Your task to perform on an android device: Check the weather Image 0: 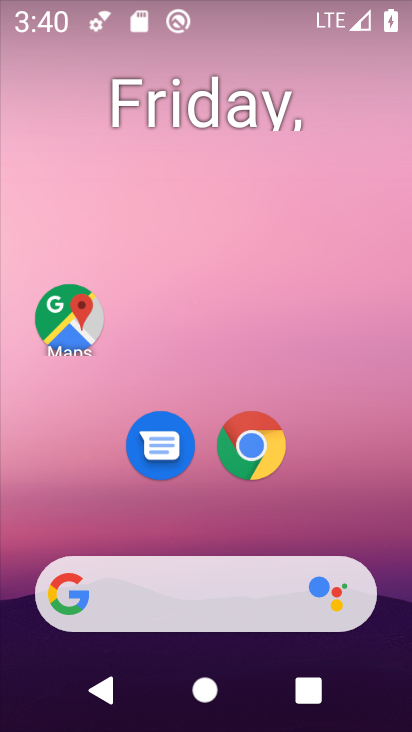
Step 0: click (252, 455)
Your task to perform on an android device: Check the weather Image 1: 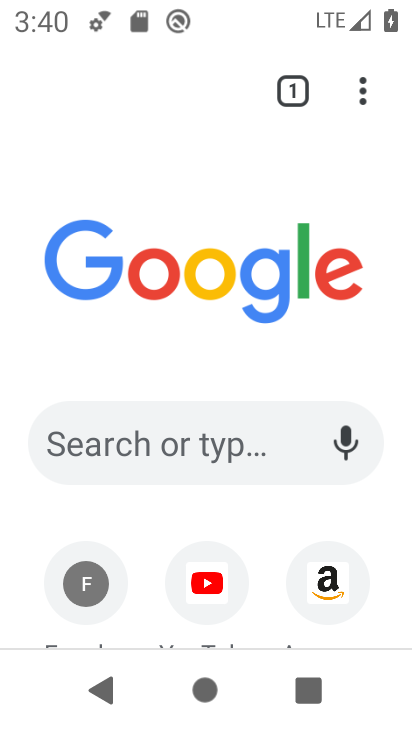
Step 1: click (208, 458)
Your task to perform on an android device: Check the weather Image 2: 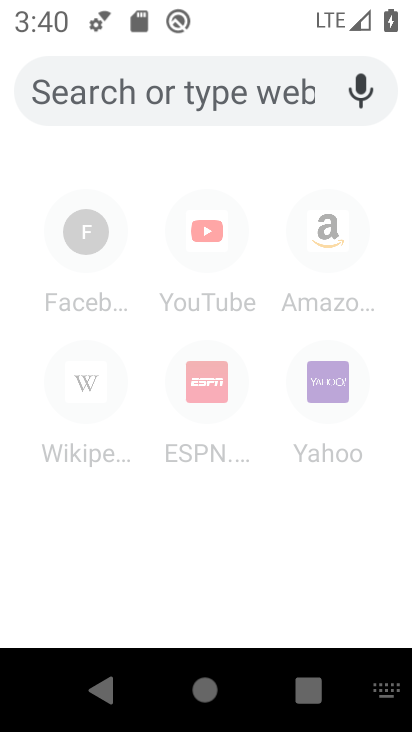
Step 2: type "Check the weather"
Your task to perform on an android device: Check the weather Image 3: 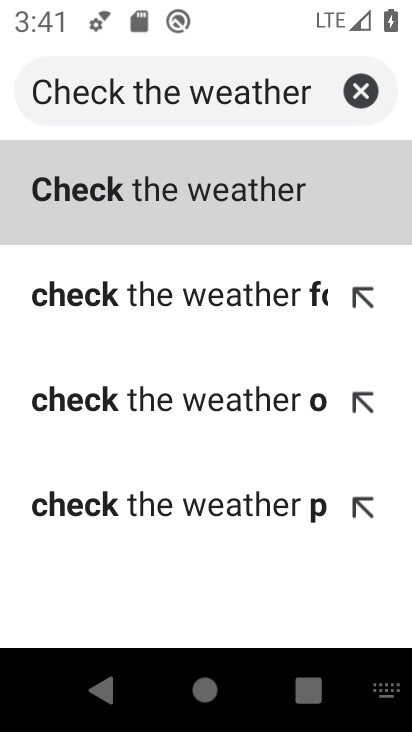
Step 3: click (287, 199)
Your task to perform on an android device: Check the weather Image 4: 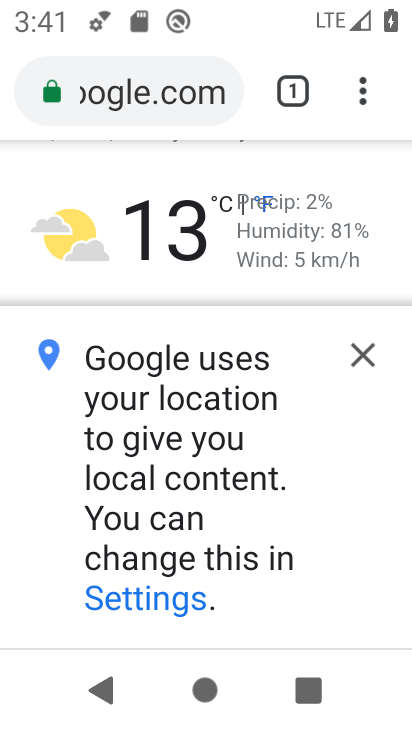
Step 4: click (359, 354)
Your task to perform on an android device: Check the weather Image 5: 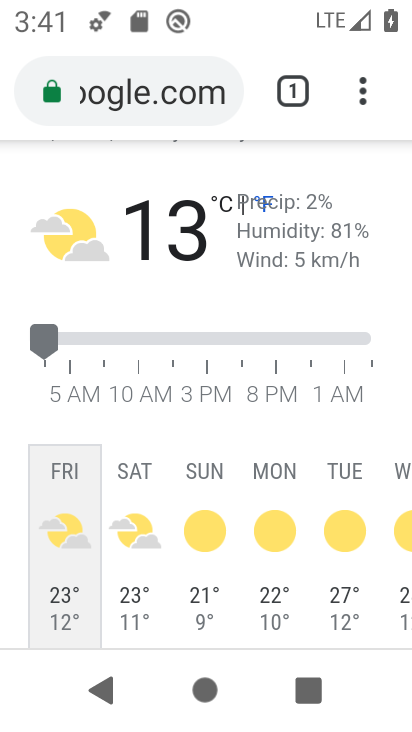
Step 5: task complete